Your task to perform on an android device: Show me productivity apps on the Play Store Image 0: 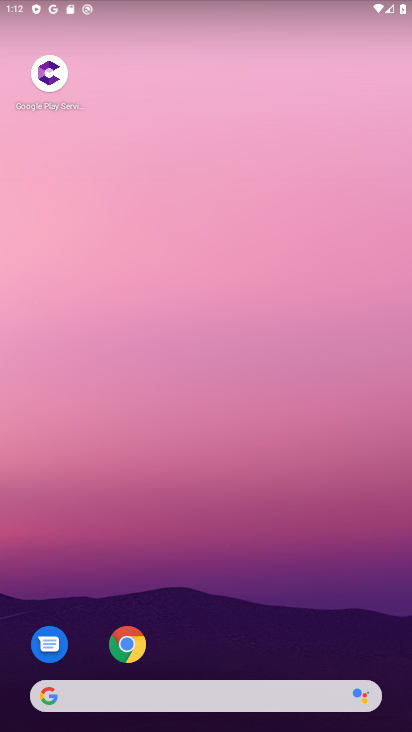
Step 0: drag from (253, 623) to (269, 221)
Your task to perform on an android device: Show me productivity apps on the Play Store Image 1: 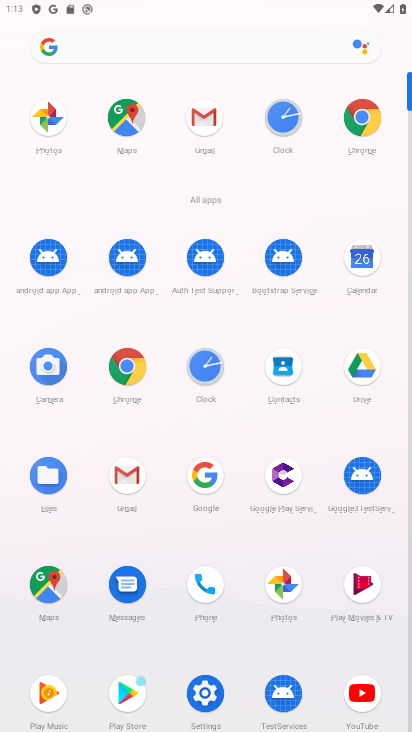
Step 1: click (135, 694)
Your task to perform on an android device: Show me productivity apps on the Play Store Image 2: 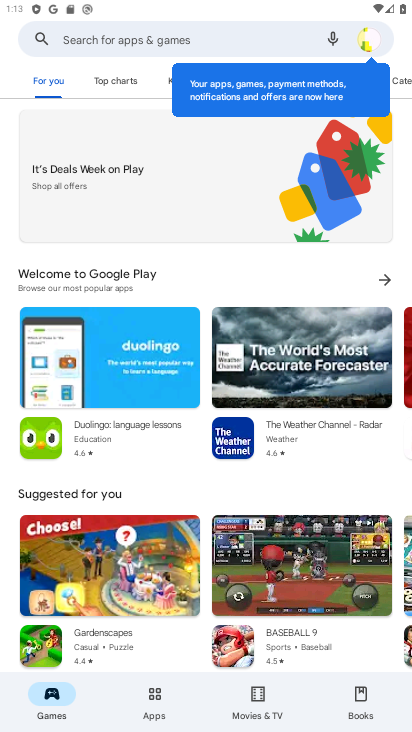
Step 2: click (152, 702)
Your task to perform on an android device: Show me productivity apps on the Play Store Image 3: 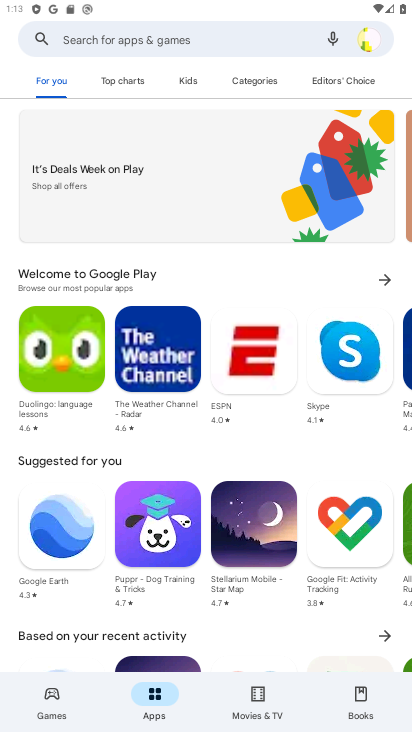
Step 3: task complete